Your task to perform on an android device: Open wifi settings Image 0: 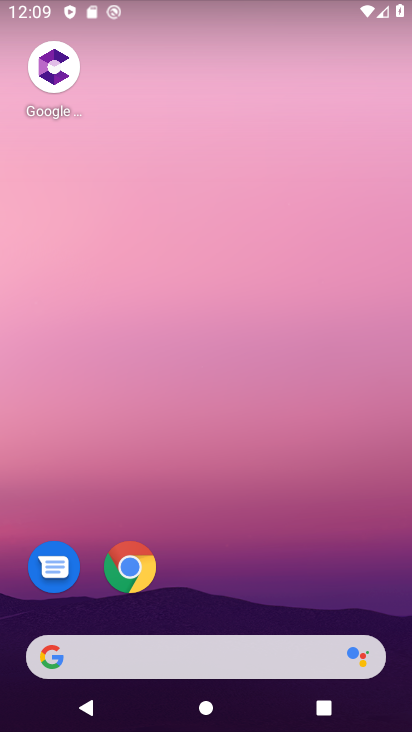
Step 0: drag from (248, 531) to (231, 74)
Your task to perform on an android device: Open wifi settings Image 1: 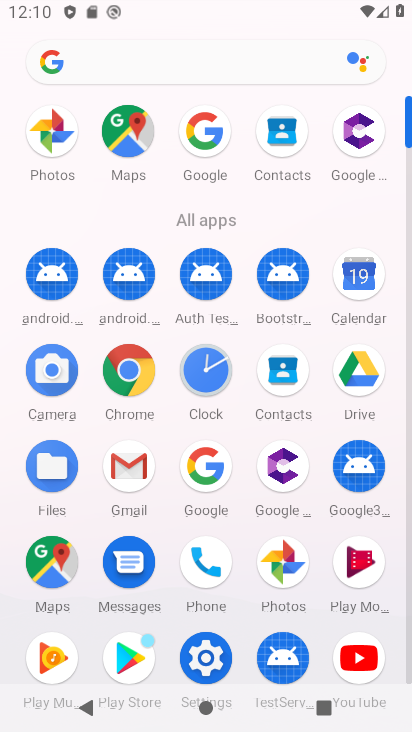
Step 1: click (204, 643)
Your task to perform on an android device: Open wifi settings Image 2: 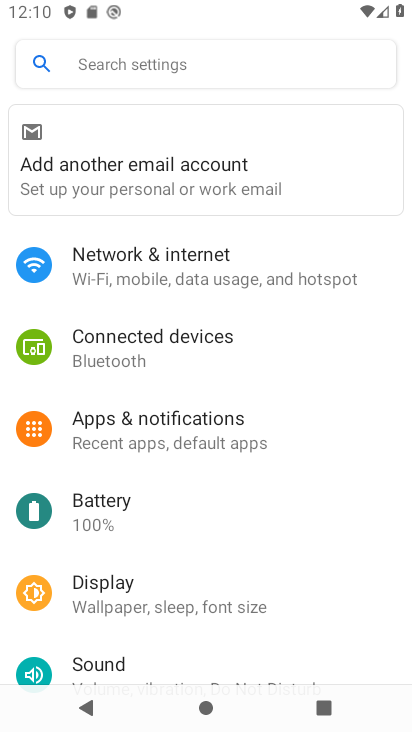
Step 2: click (222, 266)
Your task to perform on an android device: Open wifi settings Image 3: 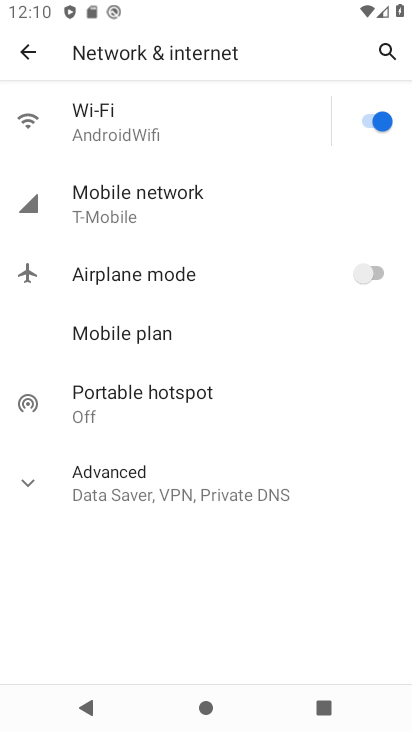
Step 3: click (139, 121)
Your task to perform on an android device: Open wifi settings Image 4: 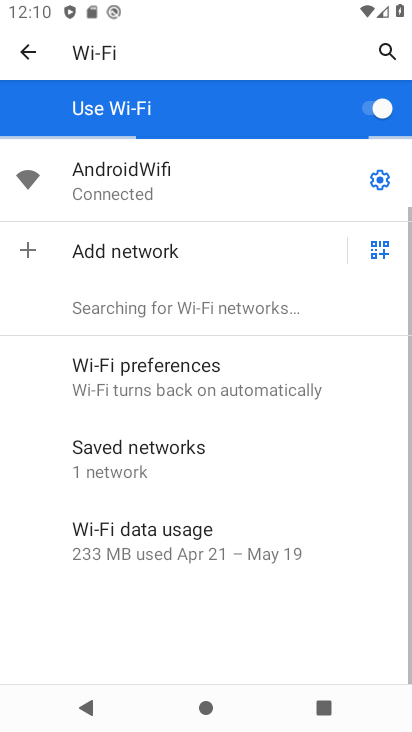
Step 4: task complete